Your task to perform on an android device: Open Yahoo.com Image 0: 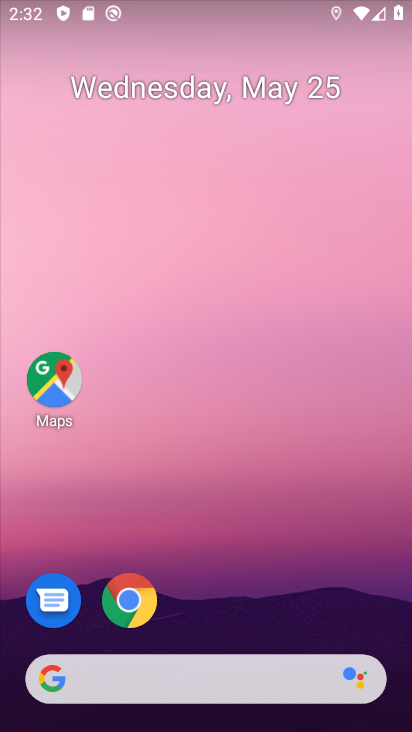
Step 0: press home button
Your task to perform on an android device: Open Yahoo.com Image 1: 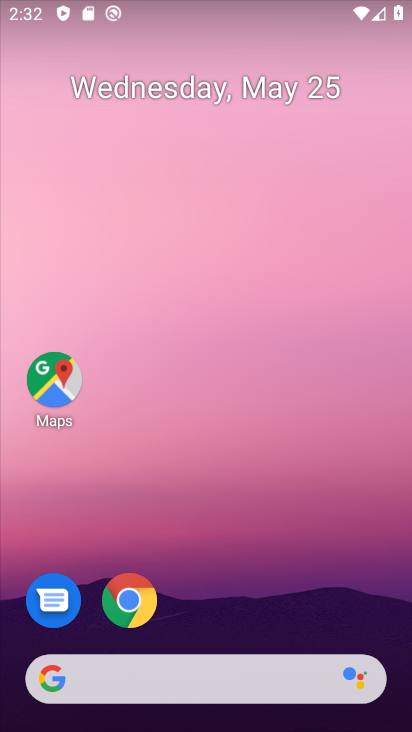
Step 1: click (134, 598)
Your task to perform on an android device: Open Yahoo.com Image 2: 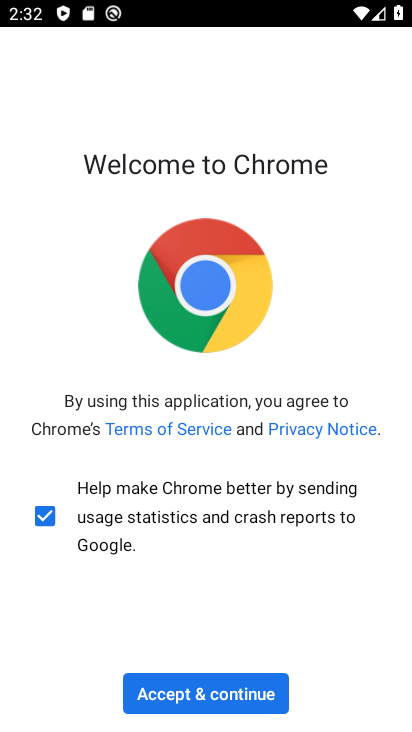
Step 2: click (217, 681)
Your task to perform on an android device: Open Yahoo.com Image 3: 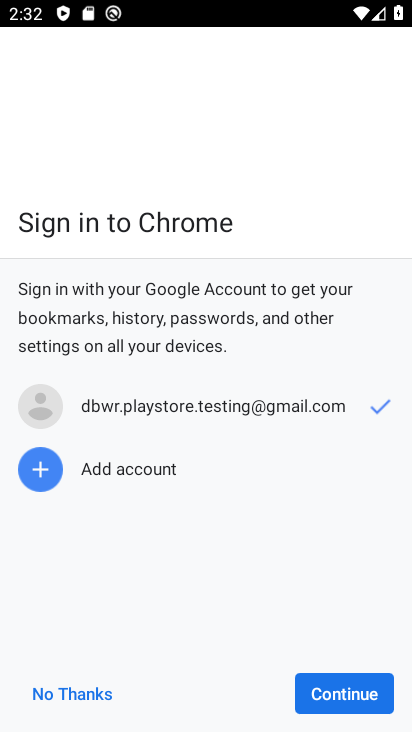
Step 3: click (81, 694)
Your task to perform on an android device: Open Yahoo.com Image 4: 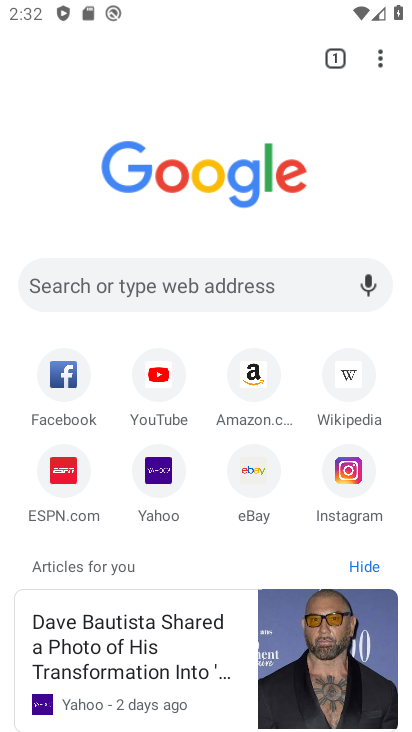
Step 4: click (151, 473)
Your task to perform on an android device: Open Yahoo.com Image 5: 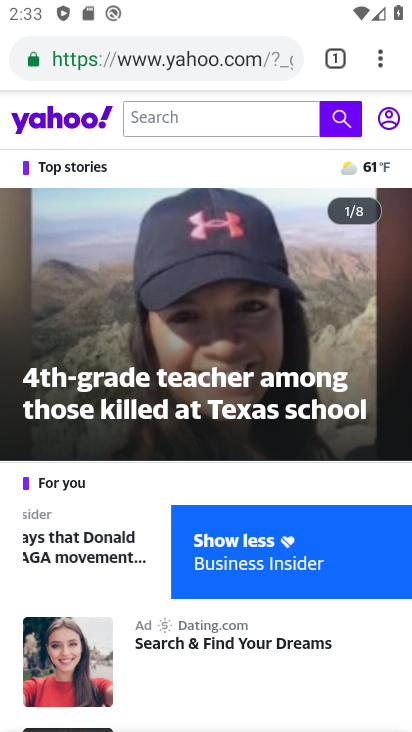
Step 5: task complete